Your task to perform on an android device: Open location settings Image 0: 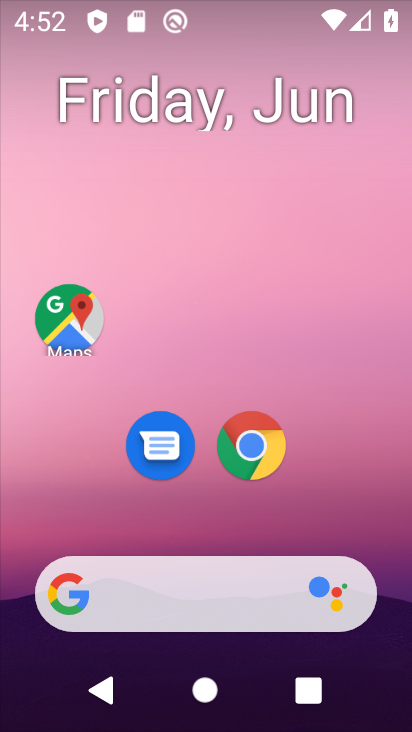
Step 0: drag from (381, 687) to (369, 68)
Your task to perform on an android device: Open location settings Image 1: 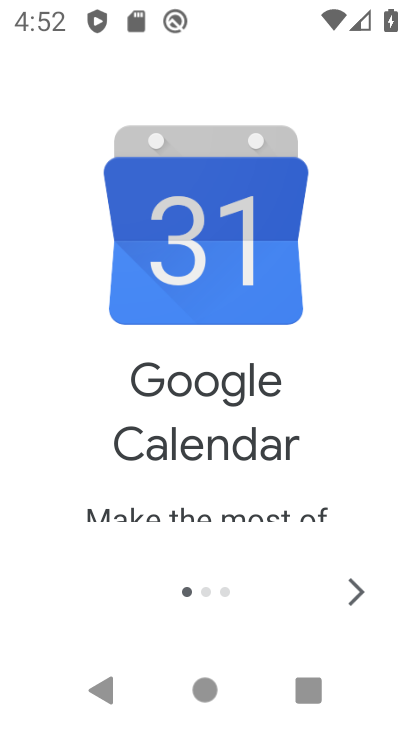
Step 1: press back button
Your task to perform on an android device: Open location settings Image 2: 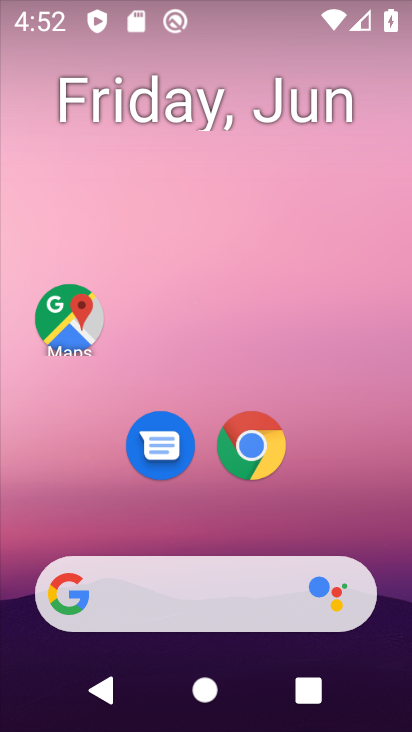
Step 2: drag from (390, 592) to (313, 50)
Your task to perform on an android device: Open location settings Image 3: 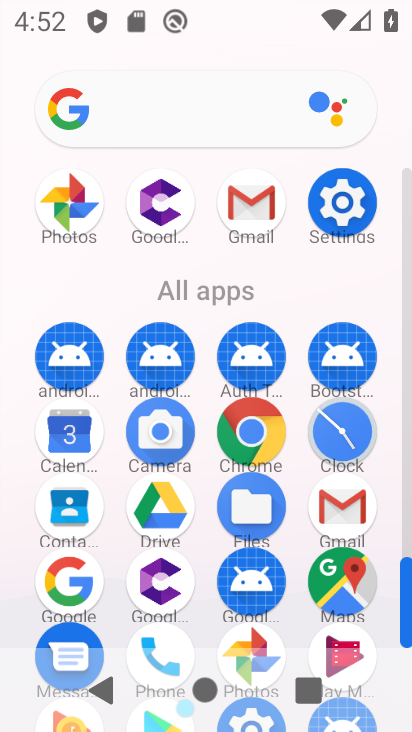
Step 3: drag from (28, 283) to (28, 195)
Your task to perform on an android device: Open location settings Image 4: 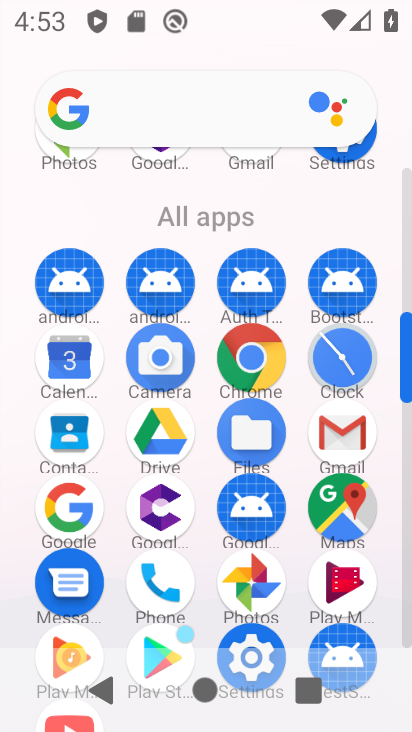
Step 4: drag from (16, 575) to (39, 257)
Your task to perform on an android device: Open location settings Image 5: 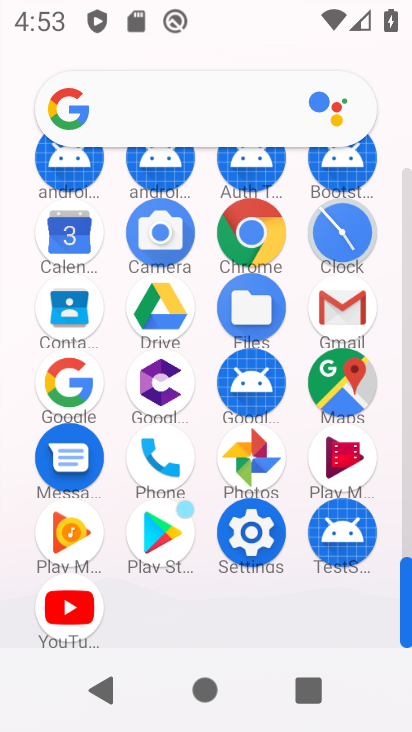
Step 5: click (250, 530)
Your task to perform on an android device: Open location settings Image 6: 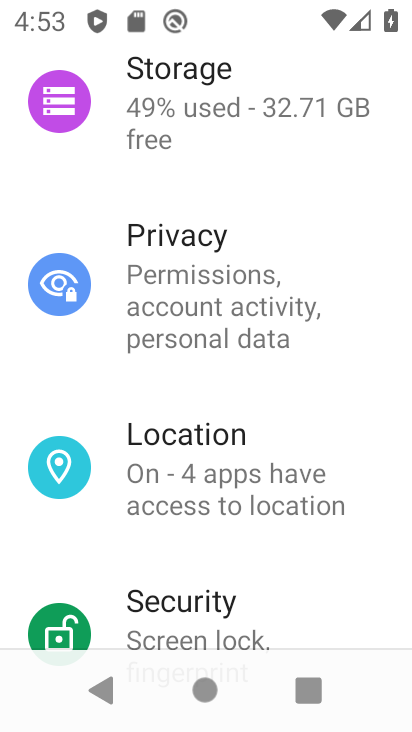
Step 6: click (199, 465)
Your task to perform on an android device: Open location settings Image 7: 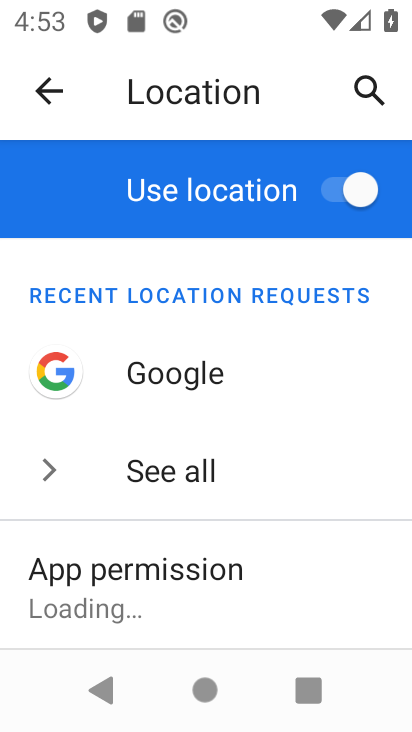
Step 7: drag from (287, 550) to (274, 219)
Your task to perform on an android device: Open location settings Image 8: 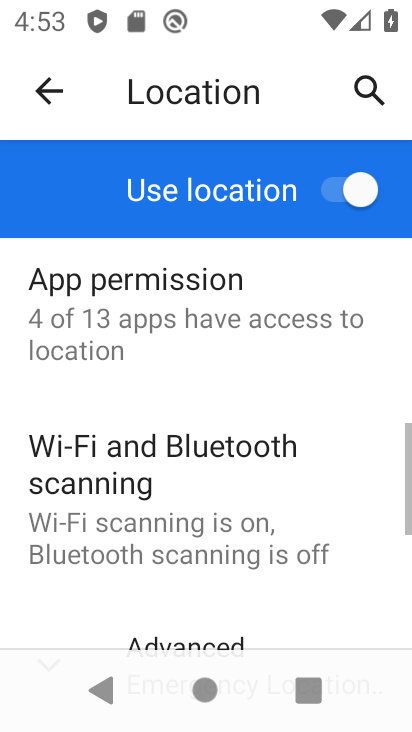
Step 8: click (50, 617)
Your task to perform on an android device: Open location settings Image 9: 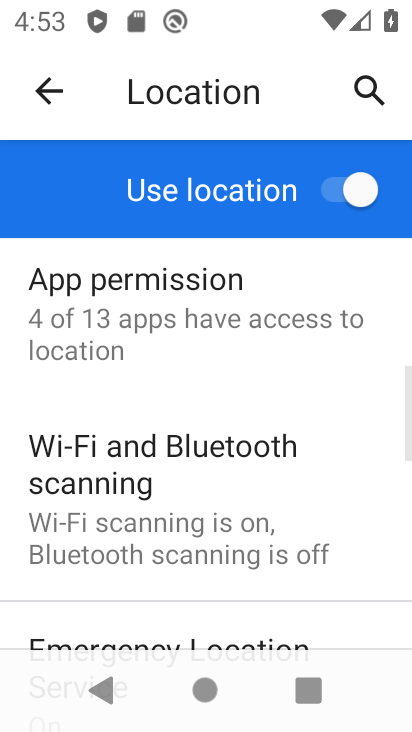
Step 9: task complete